Your task to perform on an android device: change the upload size in google photos Image 0: 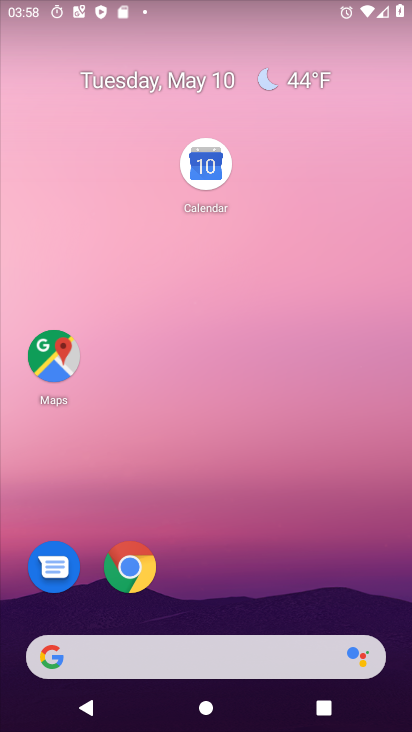
Step 0: drag from (240, 569) to (224, 66)
Your task to perform on an android device: change the upload size in google photos Image 1: 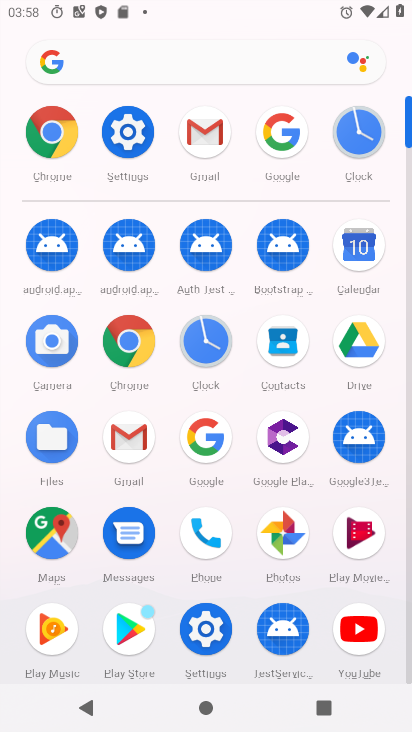
Step 1: click (285, 538)
Your task to perform on an android device: change the upload size in google photos Image 2: 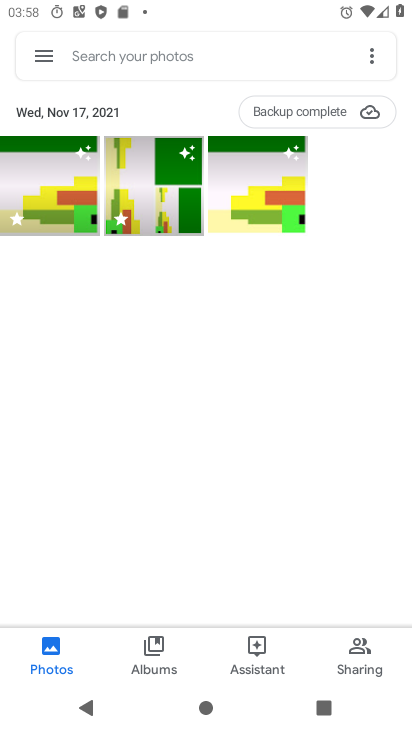
Step 2: click (42, 54)
Your task to perform on an android device: change the upload size in google photos Image 3: 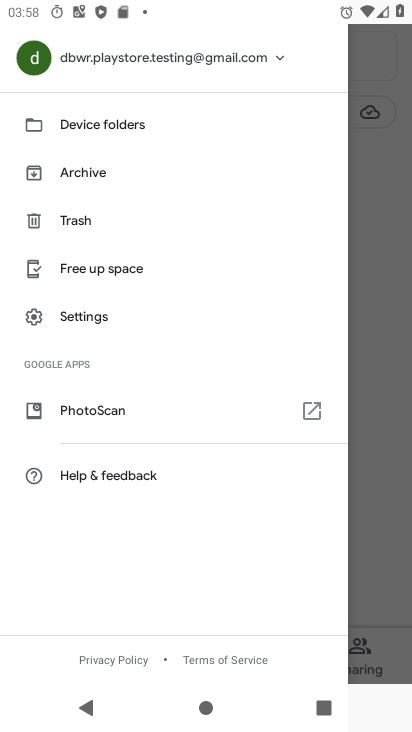
Step 3: click (138, 326)
Your task to perform on an android device: change the upload size in google photos Image 4: 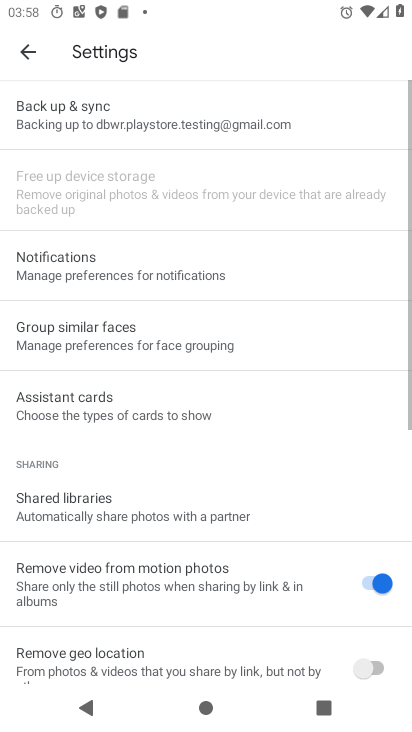
Step 4: drag from (145, 606) to (210, 690)
Your task to perform on an android device: change the upload size in google photos Image 5: 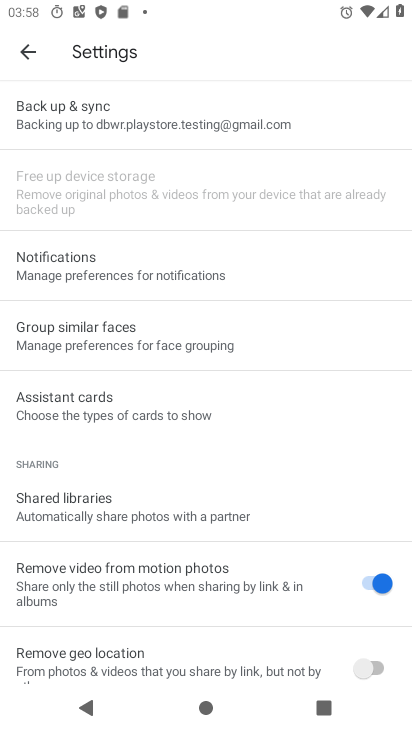
Step 5: click (93, 100)
Your task to perform on an android device: change the upload size in google photos Image 6: 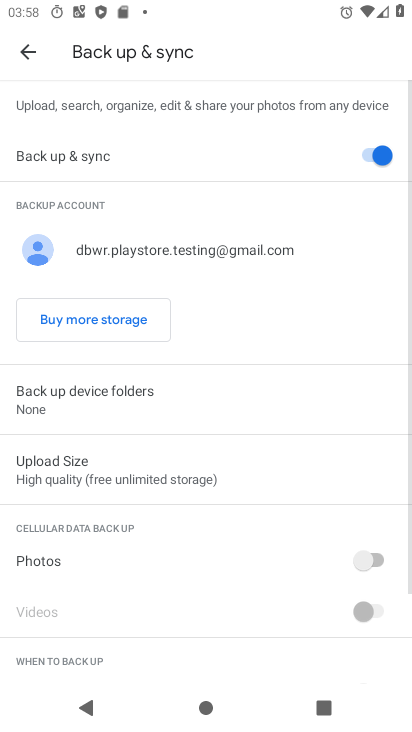
Step 6: click (92, 481)
Your task to perform on an android device: change the upload size in google photos Image 7: 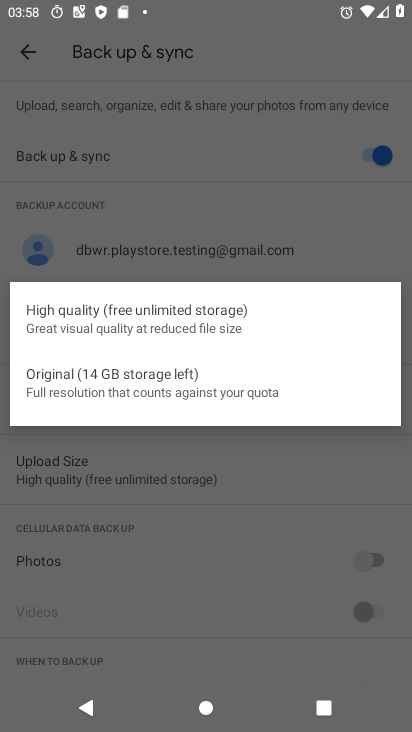
Step 7: click (86, 407)
Your task to perform on an android device: change the upload size in google photos Image 8: 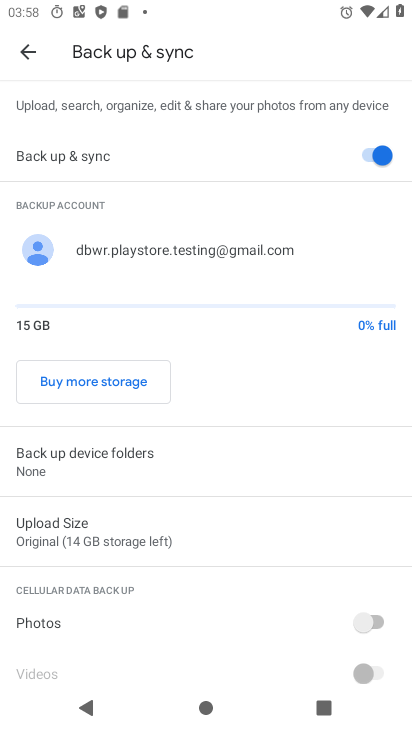
Step 8: task complete